Your task to perform on an android device: snooze an email in the gmail app Image 0: 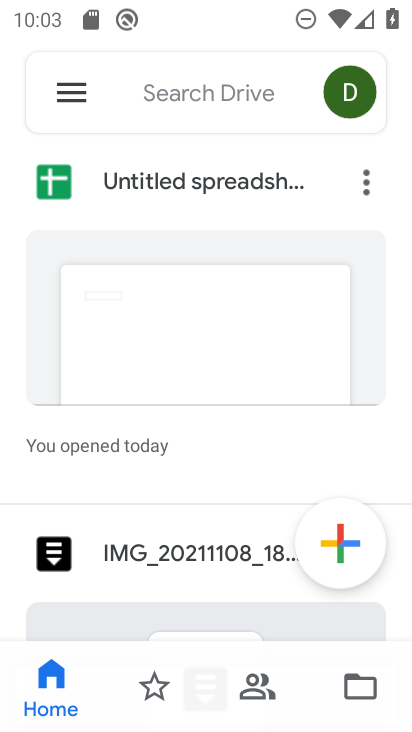
Step 0: press home button
Your task to perform on an android device: snooze an email in the gmail app Image 1: 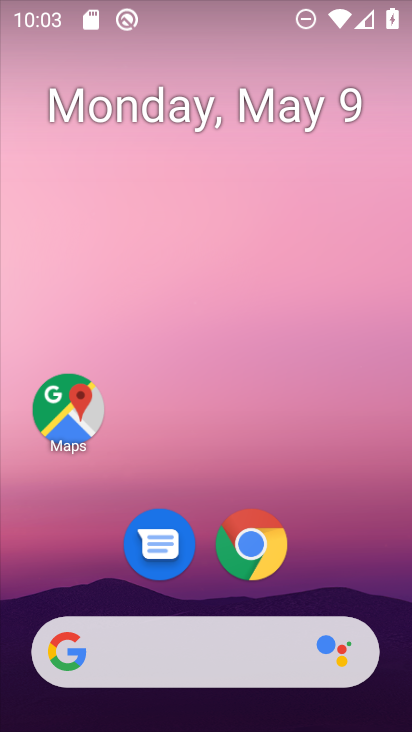
Step 1: drag from (337, 533) to (264, 189)
Your task to perform on an android device: snooze an email in the gmail app Image 2: 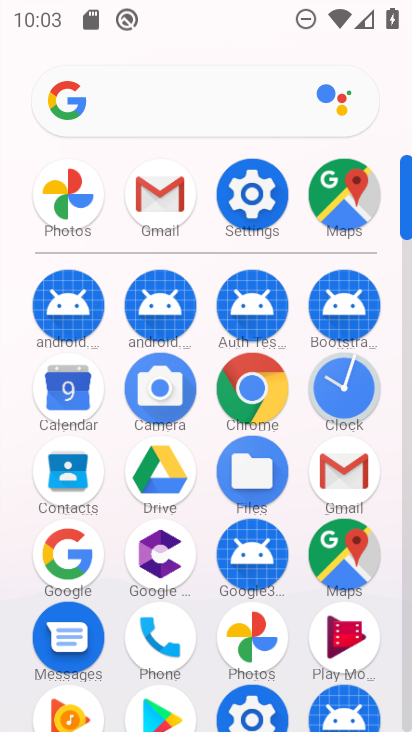
Step 2: click (152, 195)
Your task to perform on an android device: snooze an email in the gmail app Image 3: 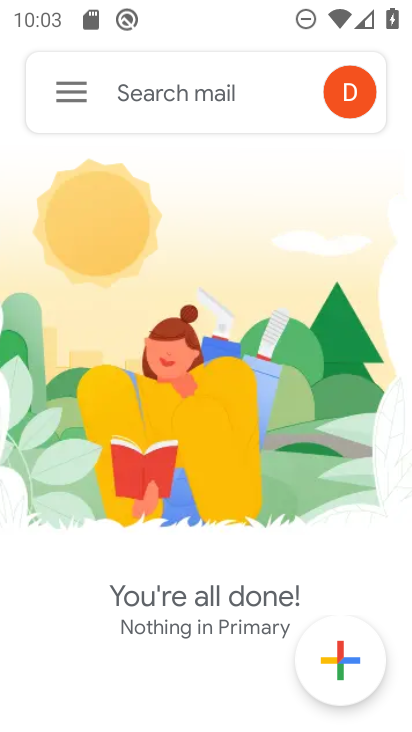
Step 3: click (67, 97)
Your task to perform on an android device: snooze an email in the gmail app Image 4: 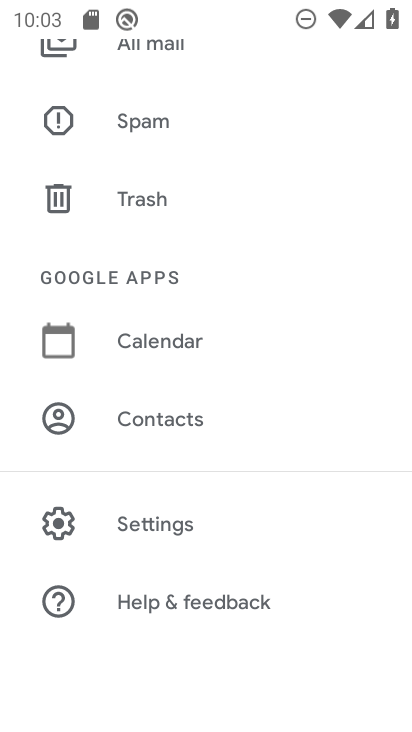
Step 4: drag from (252, 182) to (227, 727)
Your task to perform on an android device: snooze an email in the gmail app Image 5: 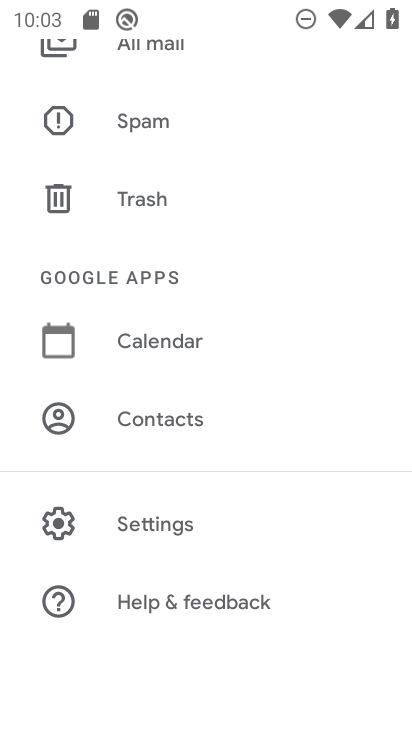
Step 5: drag from (196, 128) to (194, 408)
Your task to perform on an android device: snooze an email in the gmail app Image 6: 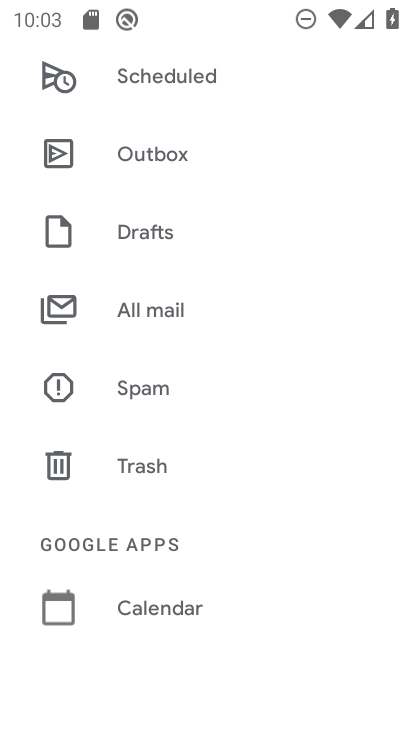
Step 6: click (153, 305)
Your task to perform on an android device: snooze an email in the gmail app Image 7: 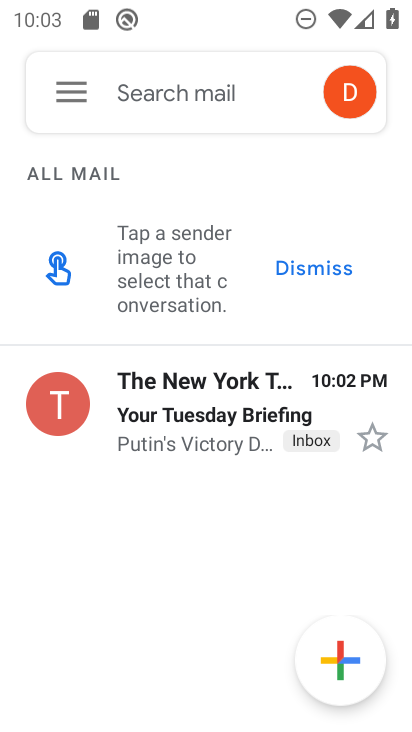
Step 7: click (181, 372)
Your task to perform on an android device: snooze an email in the gmail app Image 8: 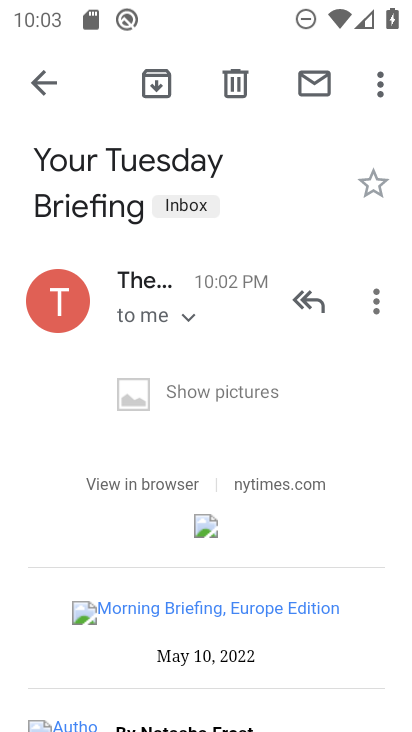
Step 8: click (382, 85)
Your task to perform on an android device: snooze an email in the gmail app Image 9: 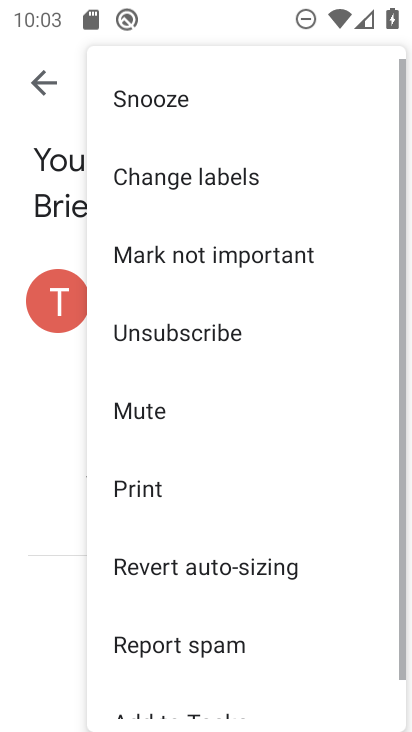
Step 9: click (166, 97)
Your task to perform on an android device: snooze an email in the gmail app Image 10: 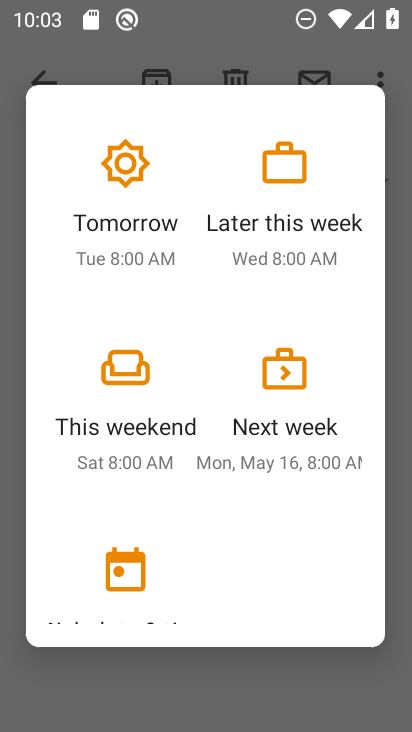
Step 10: click (113, 167)
Your task to perform on an android device: snooze an email in the gmail app Image 11: 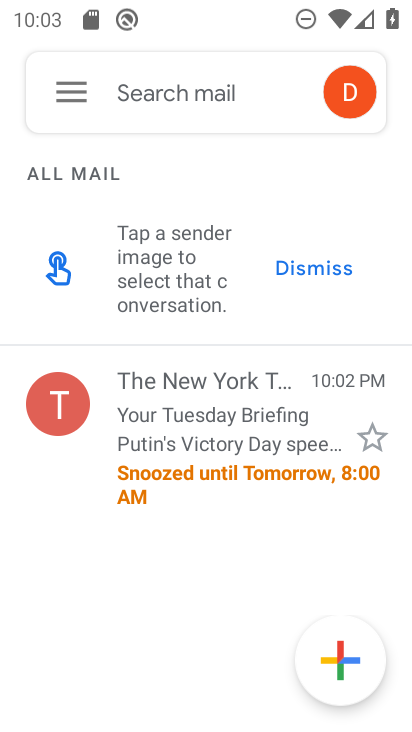
Step 11: task complete